Your task to perform on an android device: turn off picture-in-picture Image 0: 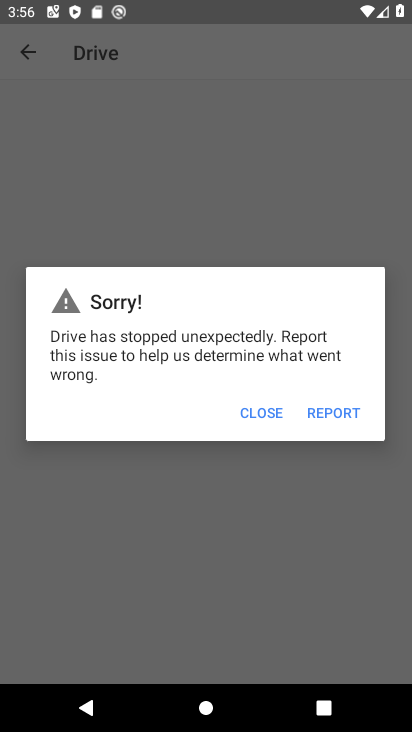
Step 0: press home button
Your task to perform on an android device: turn off picture-in-picture Image 1: 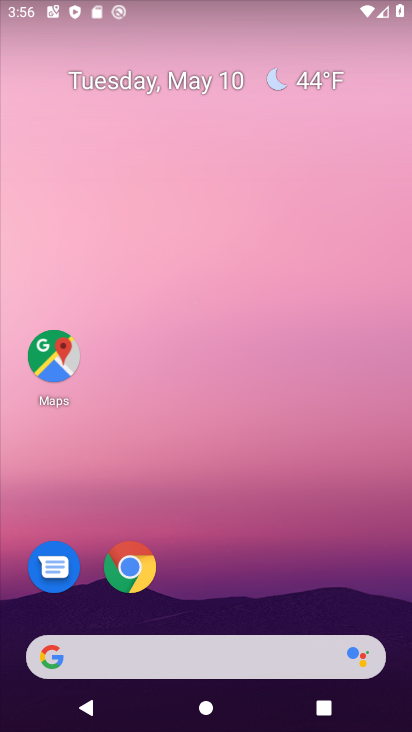
Step 1: click (132, 562)
Your task to perform on an android device: turn off picture-in-picture Image 2: 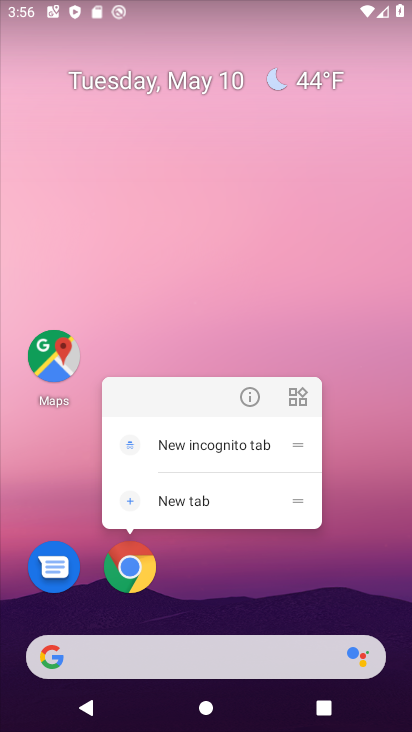
Step 2: click (247, 399)
Your task to perform on an android device: turn off picture-in-picture Image 3: 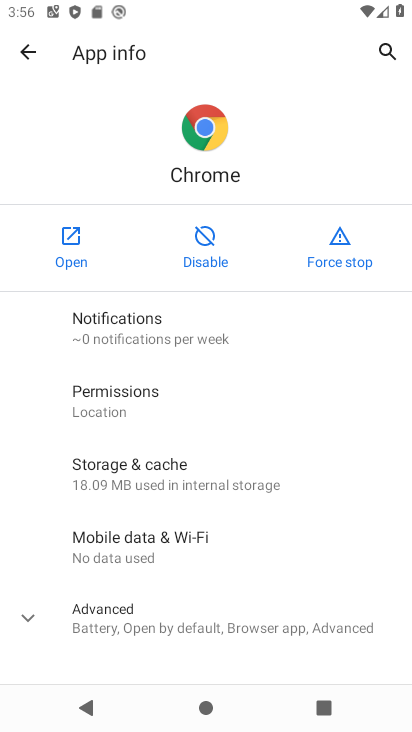
Step 3: drag from (151, 513) to (208, 304)
Your task to perform on an android device: turn off picture-in-picture Image 4: 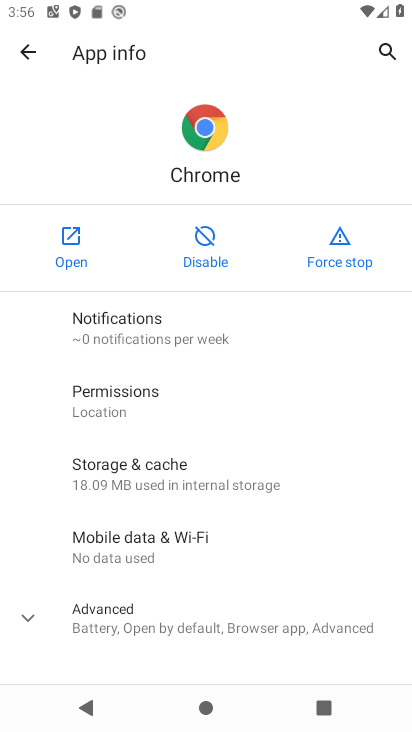
Step 4: click (134, 618)
Your task to perform on an android device: turn off picture-in-picture Image 5: 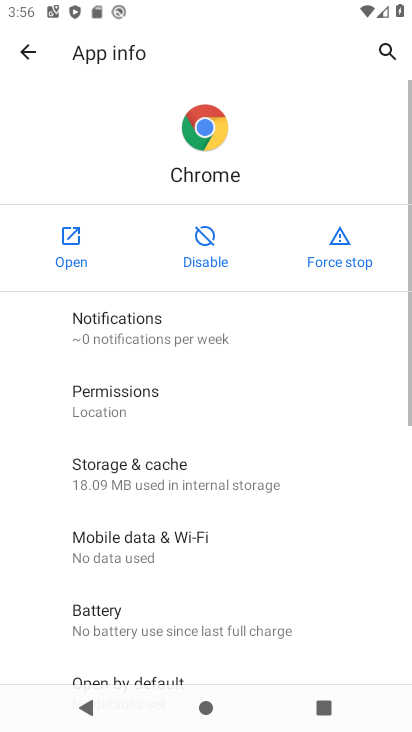
Step 5: drag from (154, 602) to (203, 369)
Your task to perform on an android device: turn off picture-in-picture Image 6: 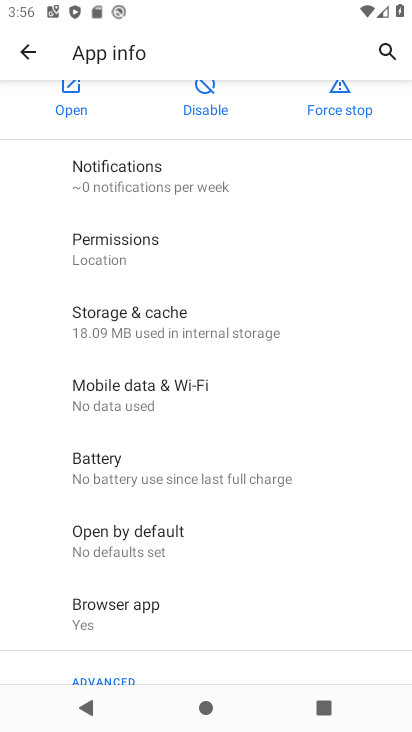
Step 6: drag from (171, 555) to (211, 373)
Your task to perform on an android device: turn off picture-in-picture Image 7: 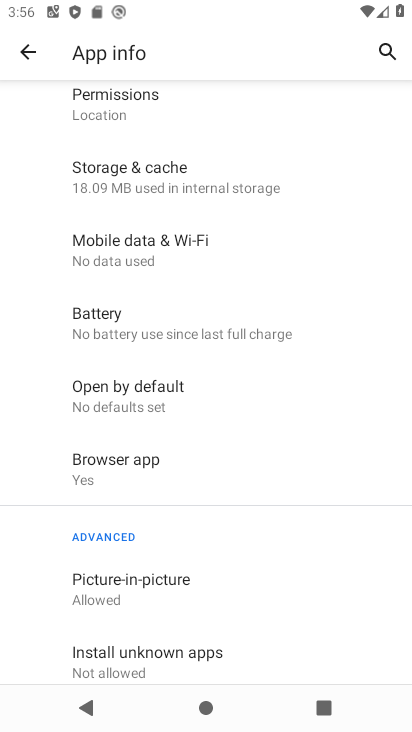
Step 7: click (142, 576)
Your task to perform on an android device: turn off picture-in-picture Image 8: 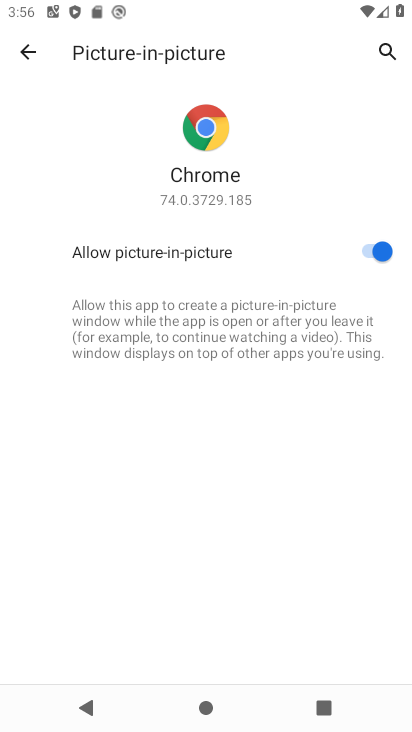
Step 8: click (379, 254)
Your task to perform on an android device: turn off picture-in-picture Image 9: 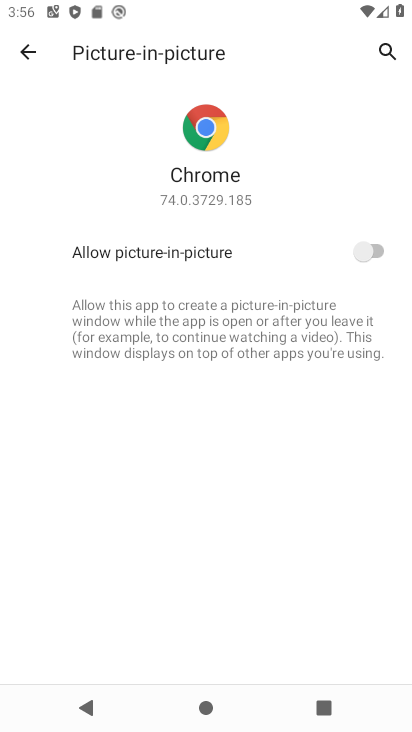
Step 9: task complete